Your task to perform on an android device: Go to calendar. Show me events next week Image 0: 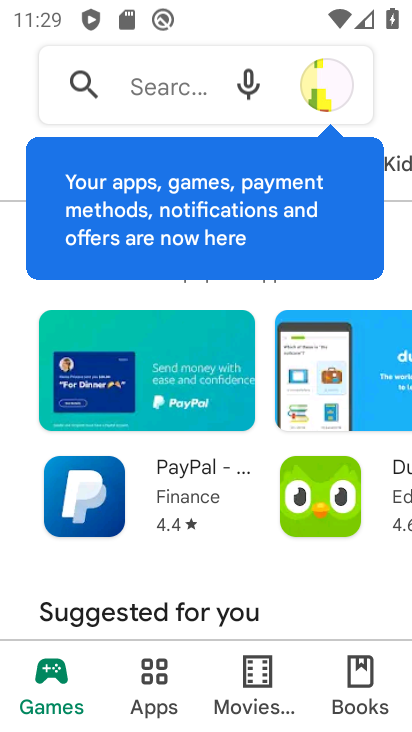
Step 0: press home button
Your task to perform on an android device: Go to calendar. Show me events next week Image 1: 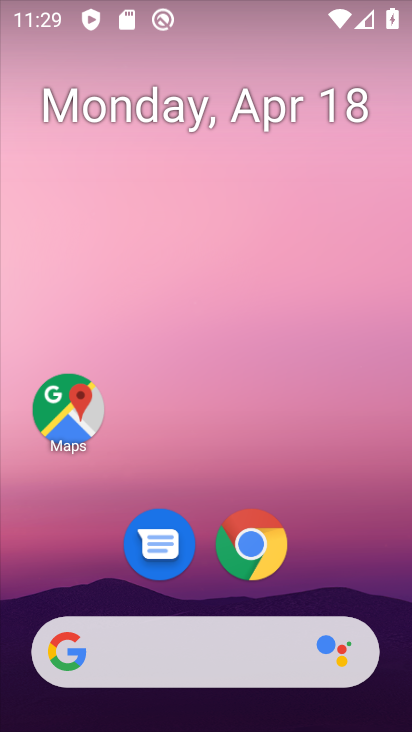
Step 1: drag from (358, 564) to (381, 4)
Your task to perform on an android device: Go to calendar. Show me events next week Image 2: 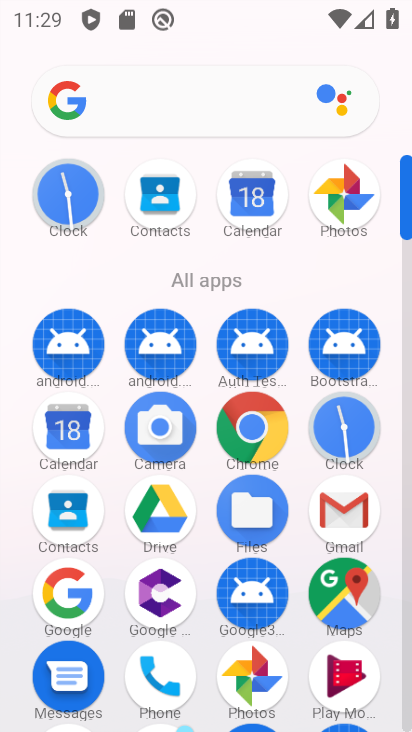
Step 2: click (251, 195)
Your task to perform on an android device: Go to calendar. Show me events next week Image 3: 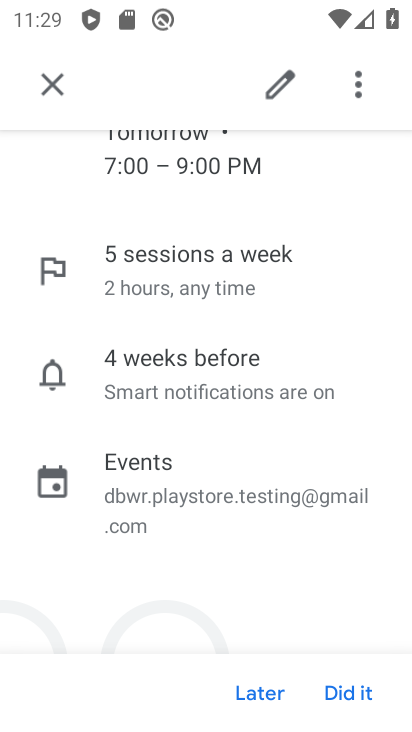
Step 3: click (46, 90)
Your task to perform on an android device: Go to calendar. Show me events next week Image 4: 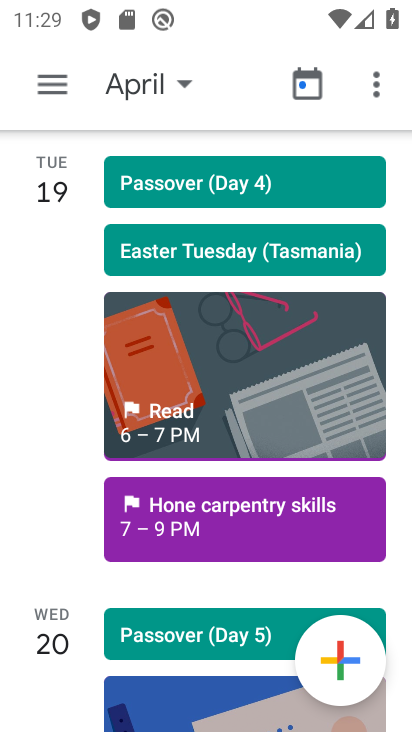
Step 4: click (183, 92)
Your task to perform on an android device: Go to calendar. Show me events next week Image 5: 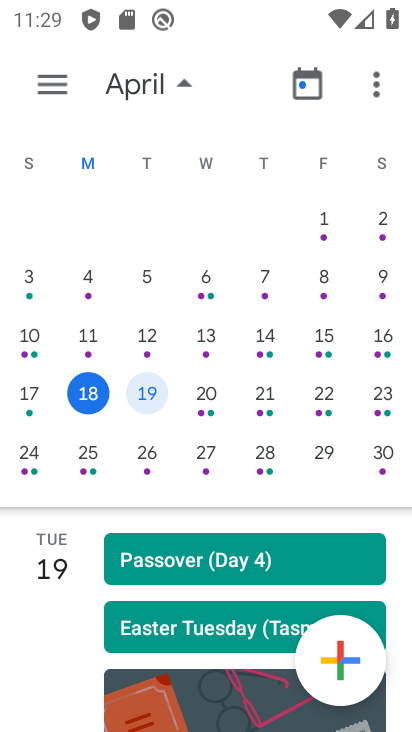
Step 5: click (205, 459)
Your task to perform on an android device: Go to calendar. Show me events next week Image 6: 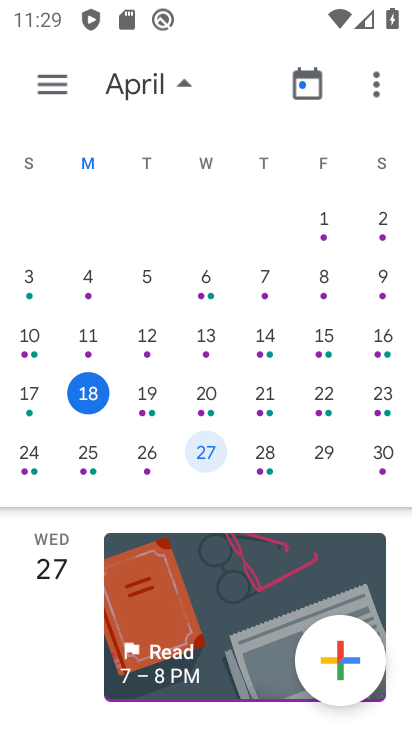
Step 6: drag from (227, 530) to (236, 246)
Your task to perform on an android device: Go to calendar. Show me events next week Image 7: 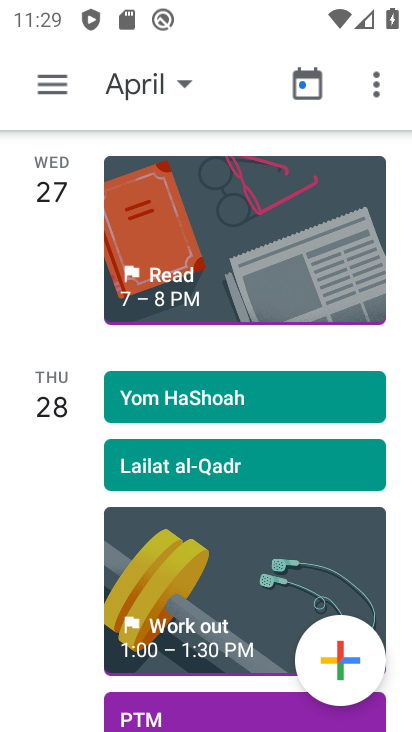
Step 7: drag from (212, 507) to (212, 200)
Your task to perform on an android device: Go to calendar. Show me events next week Image 8: 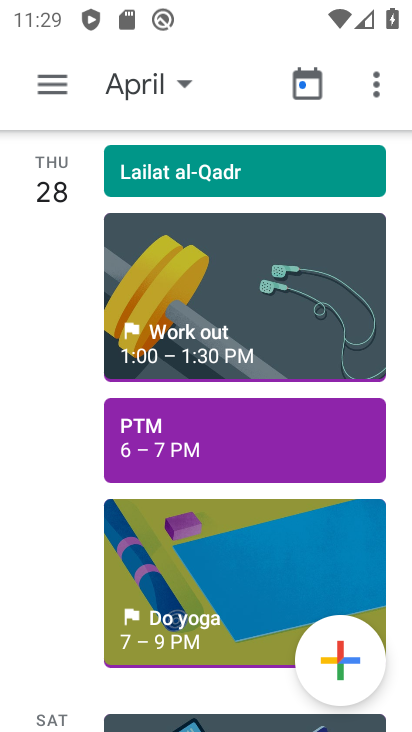
Step 8: click (206, 424)
Your task to perform on an android device: Go to calendar. Show me events next week Image 9: 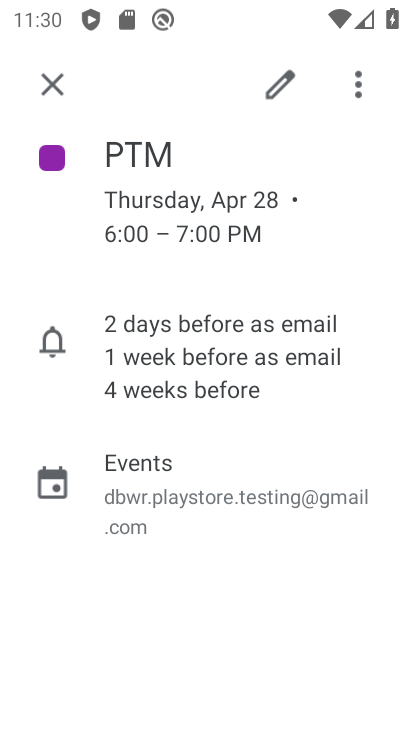
Step 9: task complete